Your task to perform on an android device: Do I have any events this weekend? Image 0: 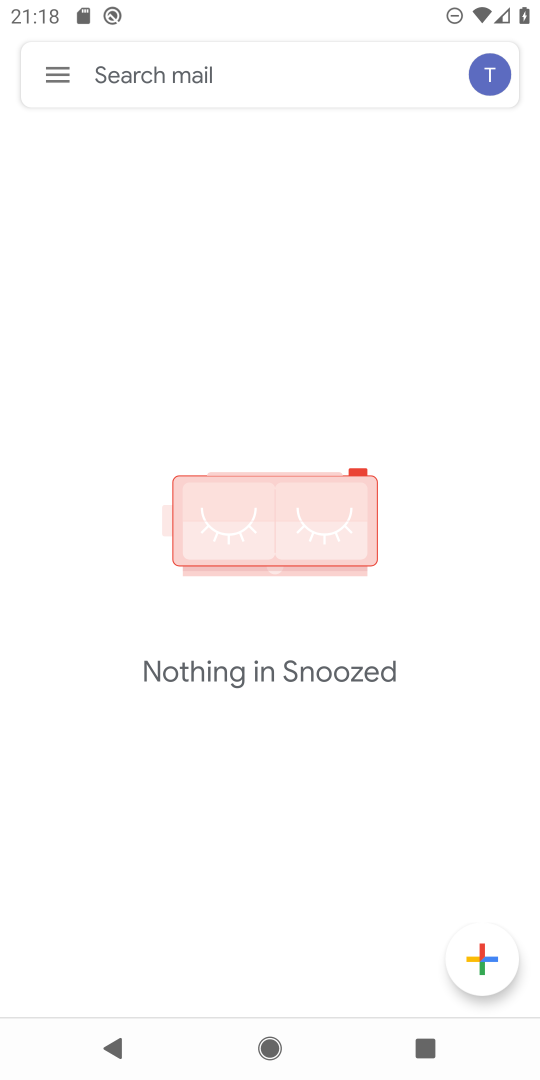
Step 0: press home button
Your task to perform on an android device: Do I have any events this weekend? Image 1: 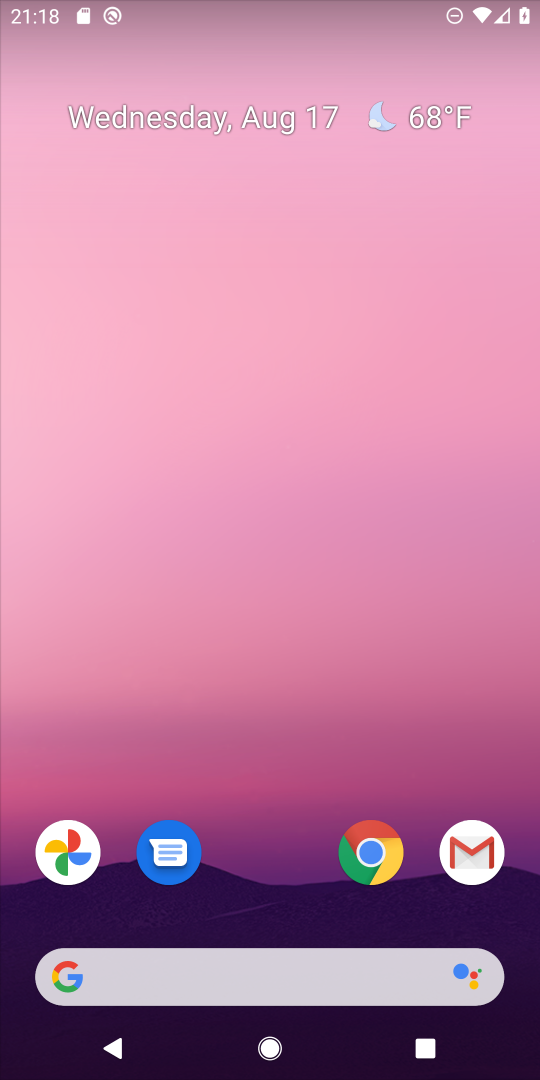
Step 1: drag from (276, 913) to (263, 275)
Your task to perform on an android device: Do I have any events this weekend? Image 2: 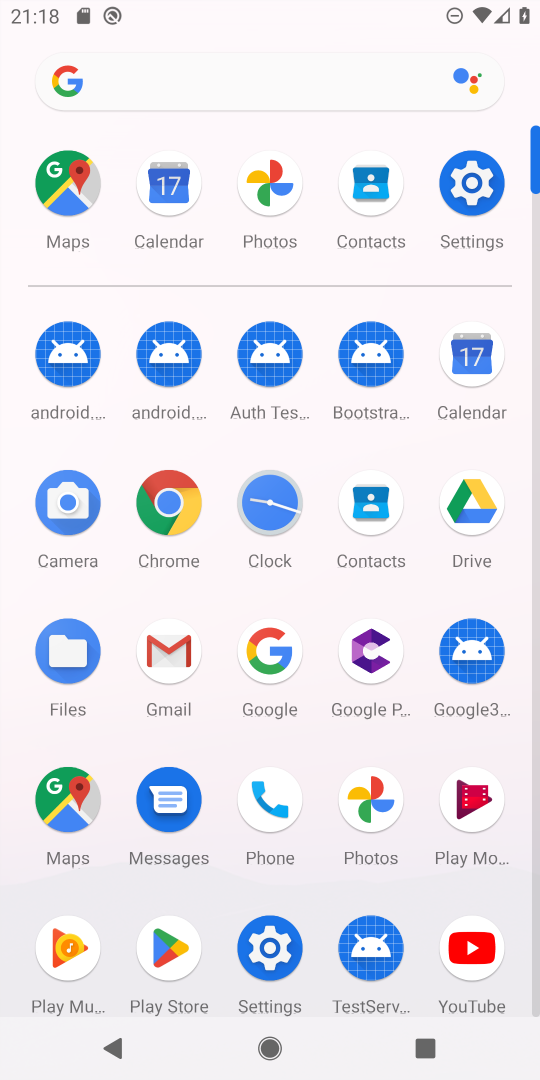
Step 2: click (459, 355)
Your task to perform on an android device: Do I have any events this weekend? Image 3: 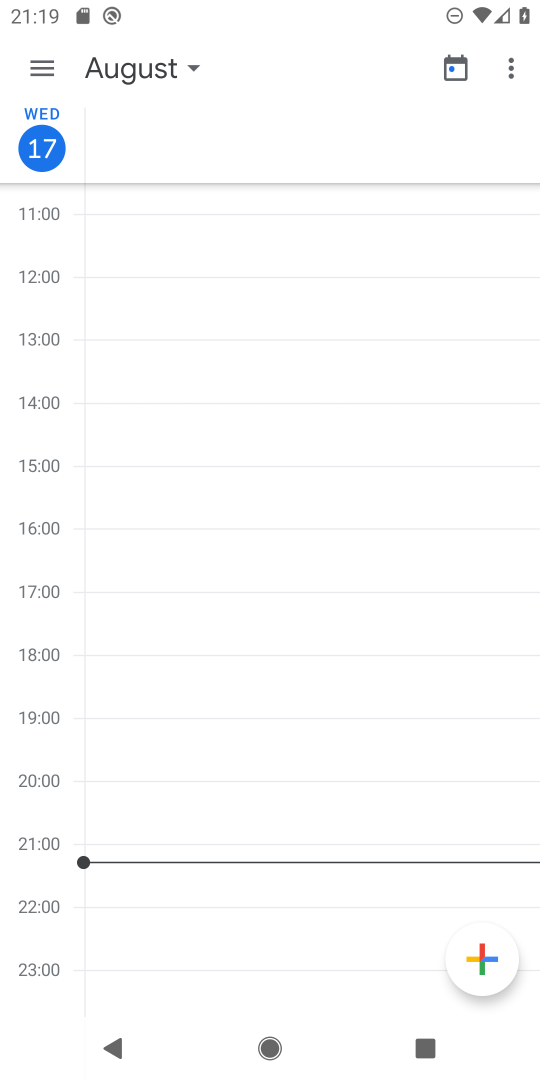
Step 3: click (43, 53)
Your task to perform on an android device: Do I have any events this weekend? Image 4: 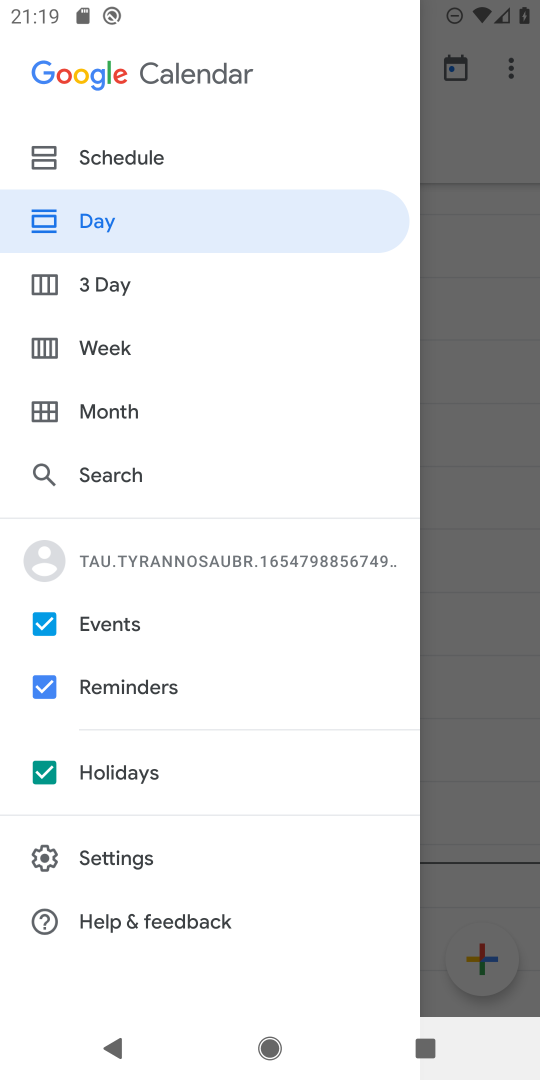
Step 4: click (112, 341)
Your task to perform on an android device: Do I have any events this weekend? Image 5: 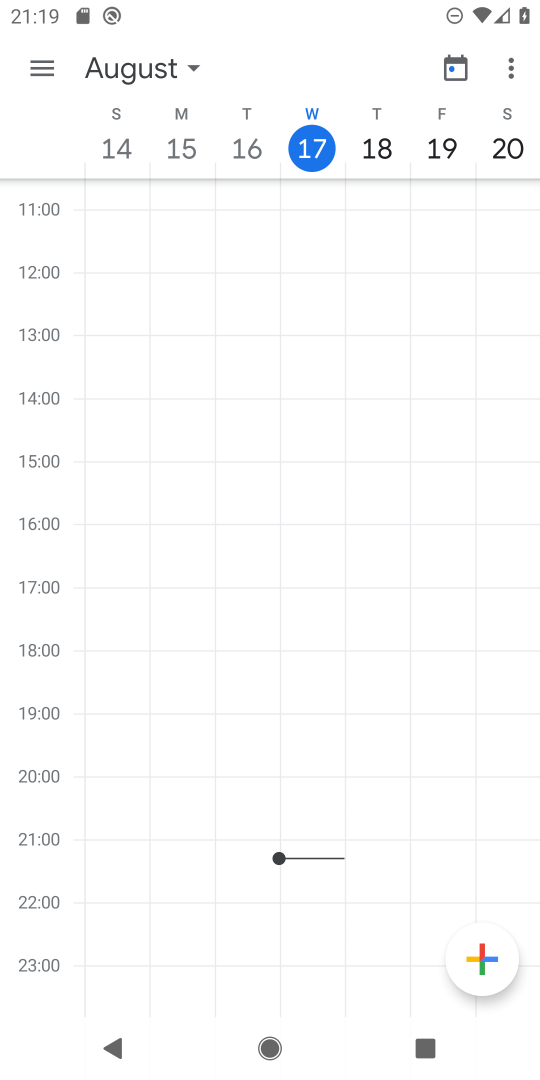
Step 5: task complete